Your task to perform on an android device: set the stopwatch Image 0: 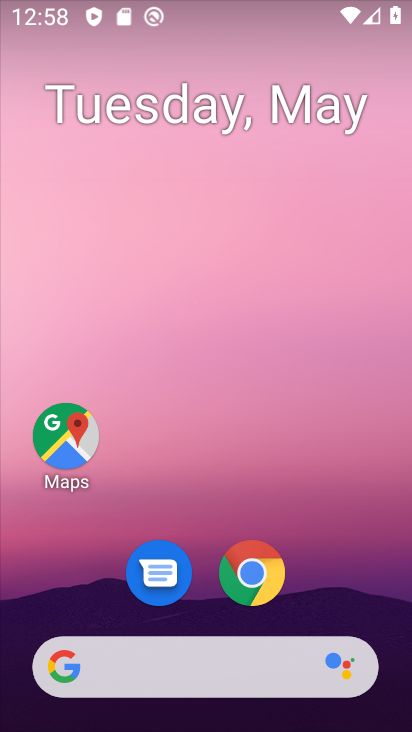
Step 0: drag from (319, 556) to (409, 26)
Your task to perform on an android device: set the stopwatch Image 1: 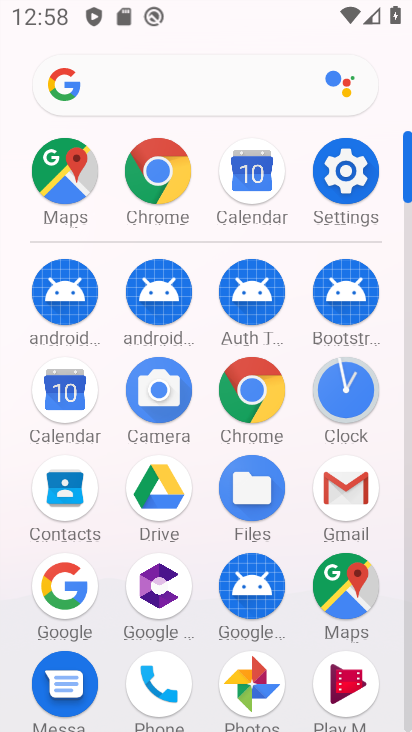
Step 1: click (342, 384)
Your task to perform on an android device: set the stopwatch Image 2: 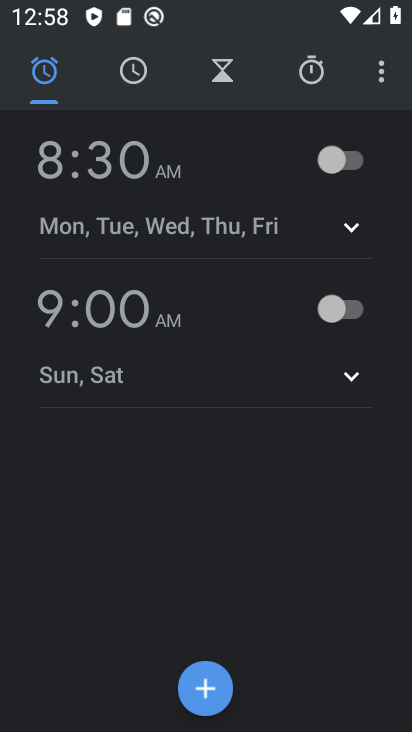
Step 2: click (331, 96)
Your task to perform on an android device: set the stopwatch Image 3: 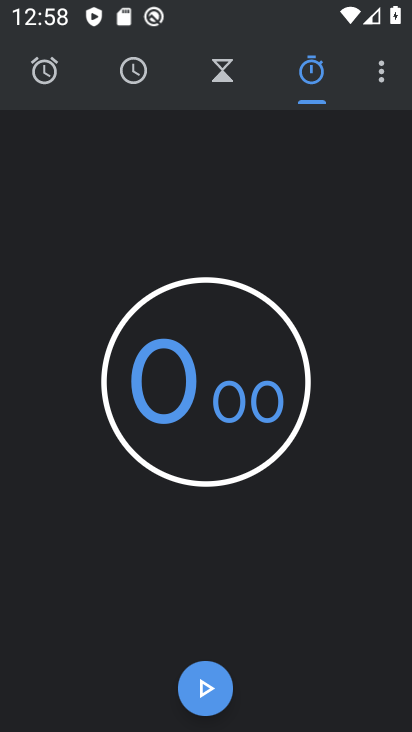
Step 3: click (224, 671)
Your task to perform on an android device: set the stopwatch Image 4: 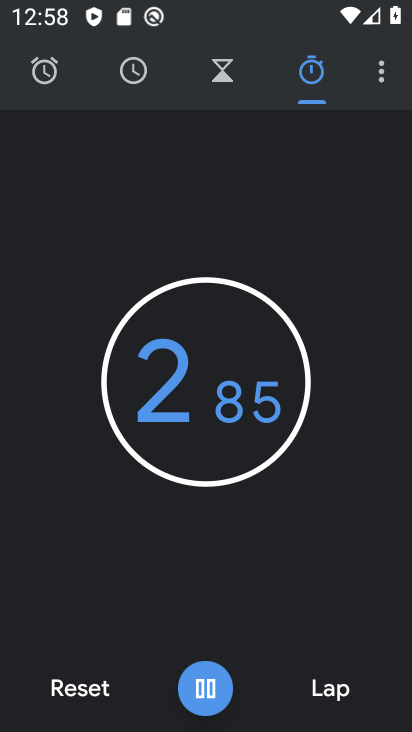
Step 4: task complete